Your task to perform on an android device: Search for pizza restaurants on Maps Image 0: 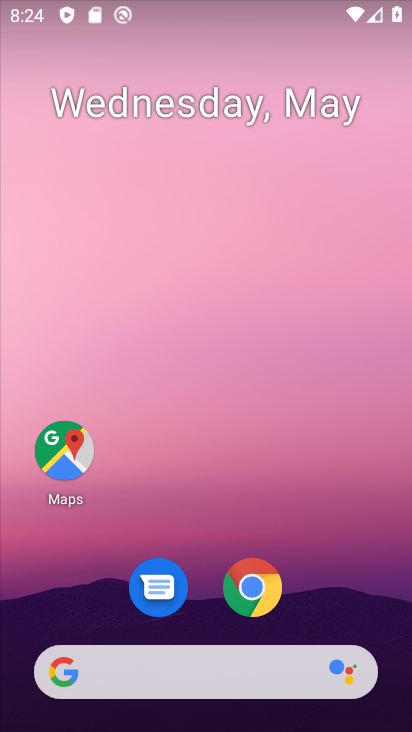
Step 0: click (66, 427)
Your task to perform on an android device: Search for pizza restaurants on Maps Image 1: 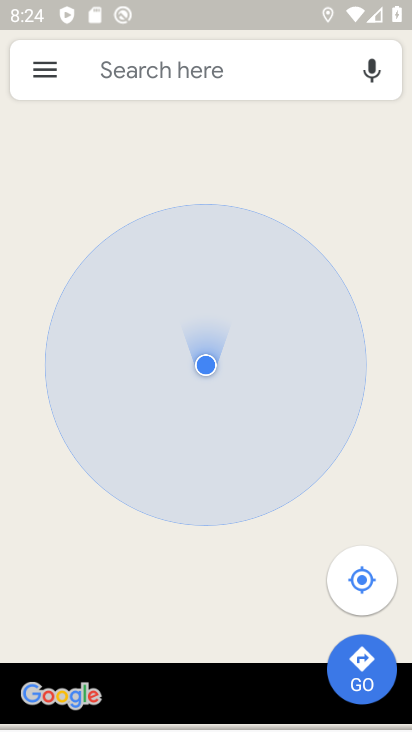
Step 1: click (162, 73)
Your task to perform on an android device: Search for pizza restaurants on Maps Image 2: 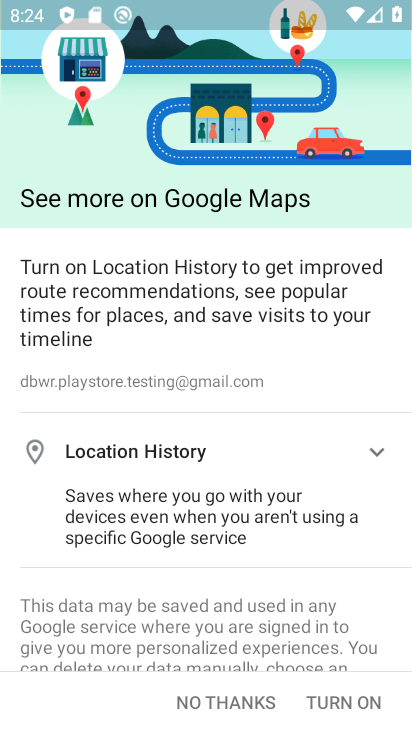
Step 2: type "Pizza restaurants"
Your task to perform on an android device: Search for pizza restaurants on Maps Image 3: 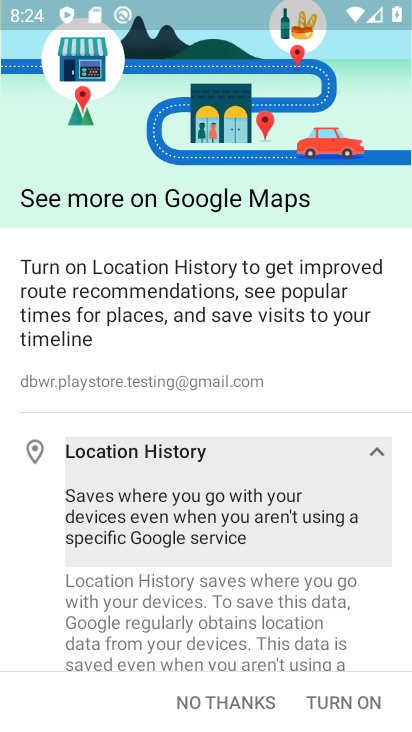
Step 3: click (260, 699)
Your task to perform on an android device: Search for pizza restaurants on Maps Image 4: 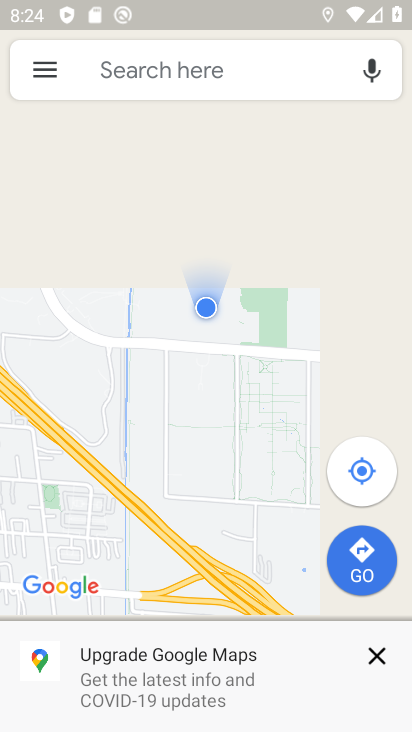
Step 4: click (168, 61)
Your task to perform on an android device: Search for pizza restaurants on Maps Image 5: 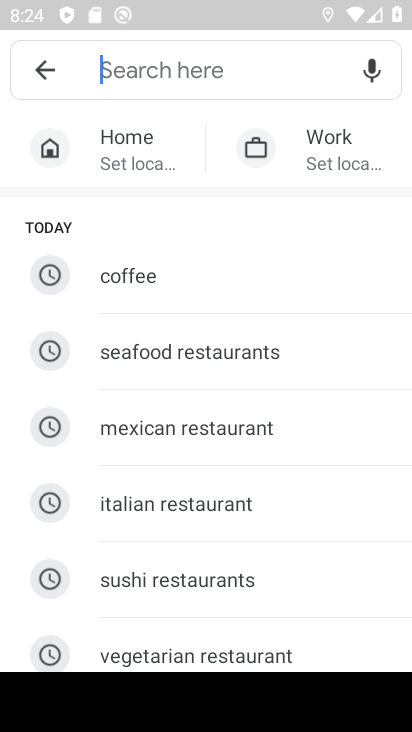
Step 5: type "pizza restaurants"
Your task to perform on an android device: Search for pizza restaurants on Maps Image 6: 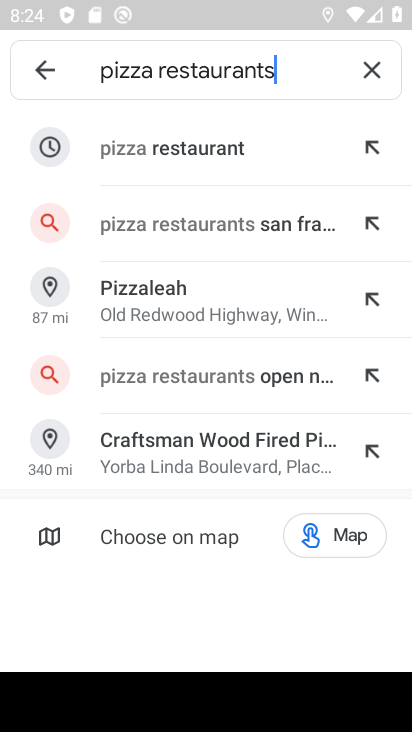
Step 6: click (211, 164)
Your task to perform on an android device: Search for pizza restaurants on Maps Image 7: 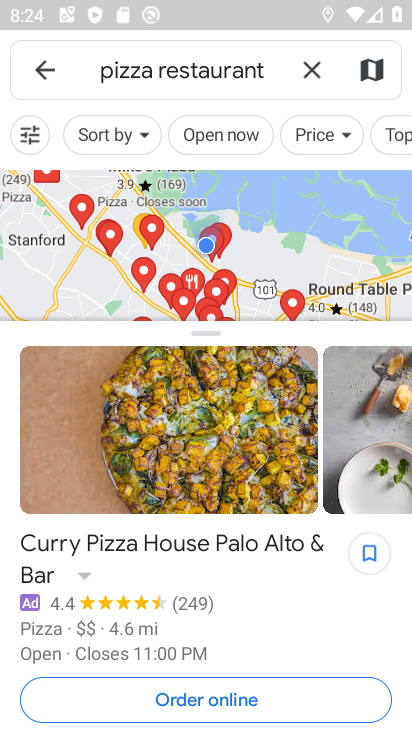
Step 7: task complete